Your task to perform on an android device: Open Google Chrome and open the bookmarks view Image 0: 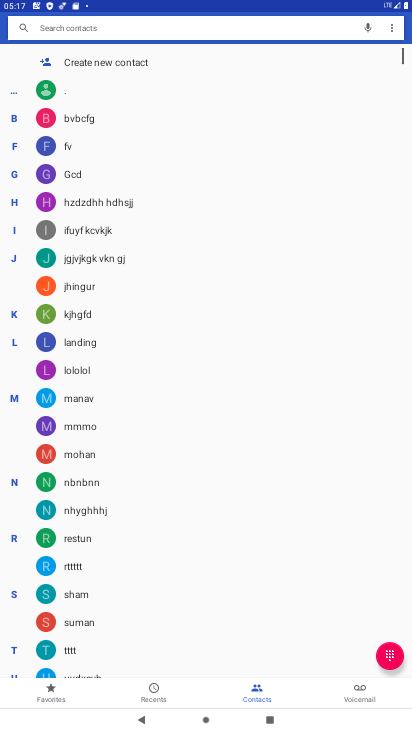
Step 0: press home button
Your task to perform on an android device: Open Google Chrome and open the bookmarks view Image 1: 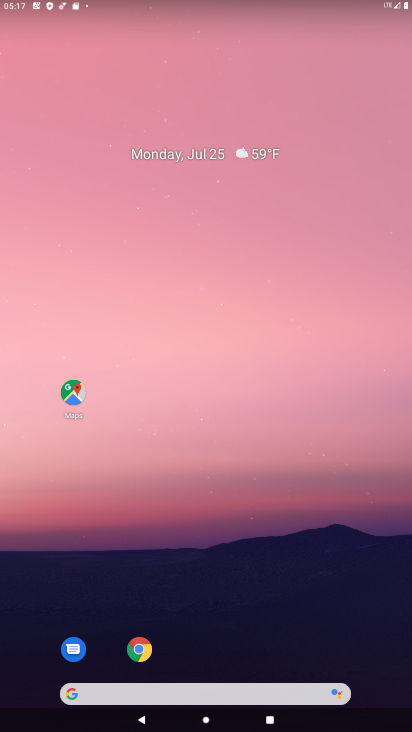
Step 1: drag from (212, 722) to (112, 5)
Your task to perform on an android device: Open Google Chrome and open the bookmarks view Image 2: 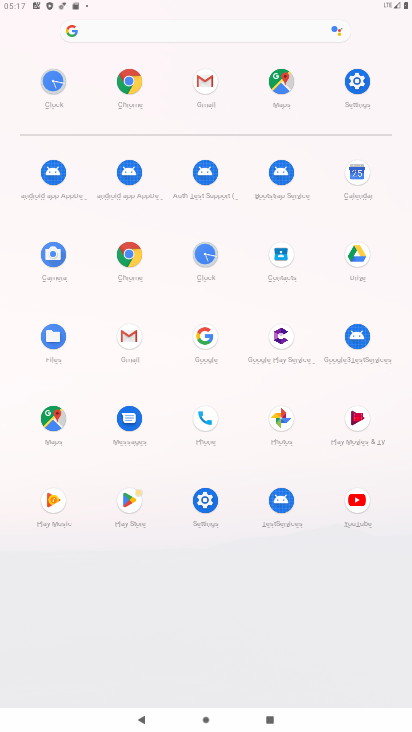
Step 2: click (107, 87)
Your task to perform on an android device: Open Google Chrome and open the bookmarks view Image 3: 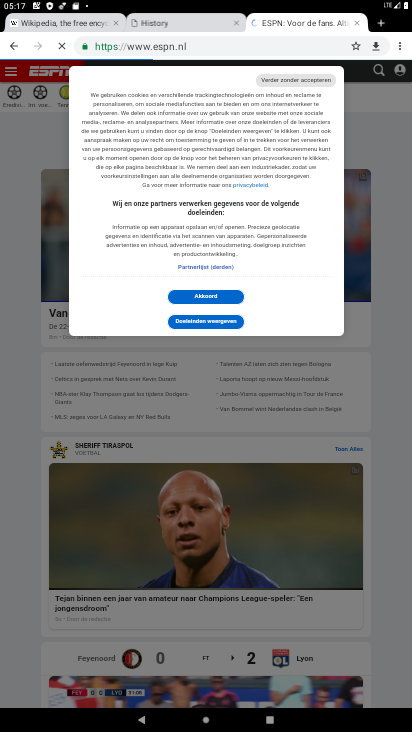
Step 3: drag from (391, 46) to (341, 105)
Your task to perform on an android device: Open Google Chrome and open the bookmarks view Image 4: 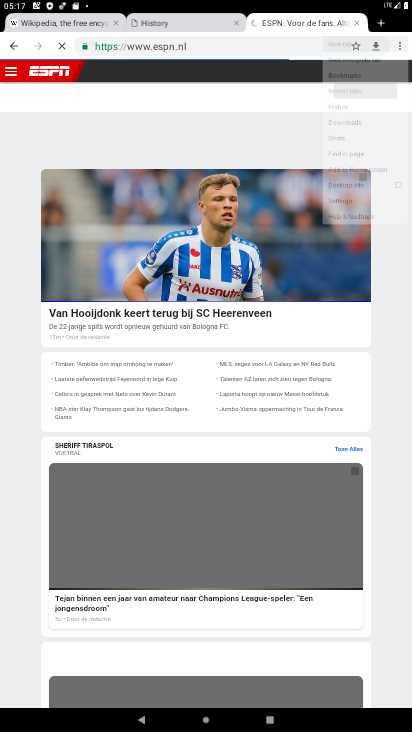
Step 4: click (326, 94)
Your task to perform on an android device: Open Google Chrome and open the bookmarks view Image 5: 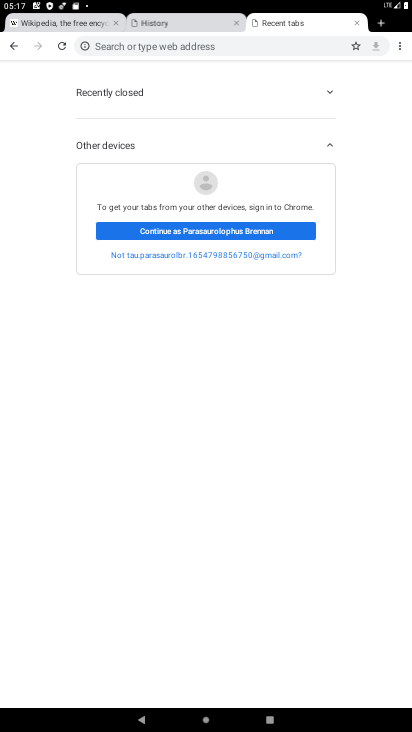
Step 5: click (224, 224)
Your task to perform on an android device: Open Google Chrome and open the bookmarks view Image 6: 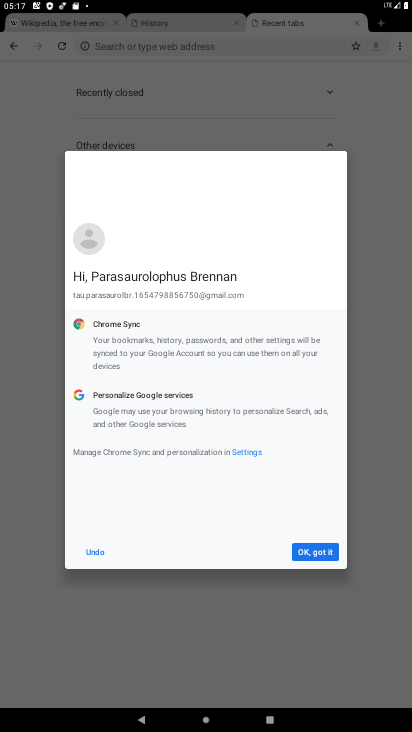
Step 6: click (324, 554)
Your task to perform on an android device: Open Google Chrome and open the bookmarks view Image 7: 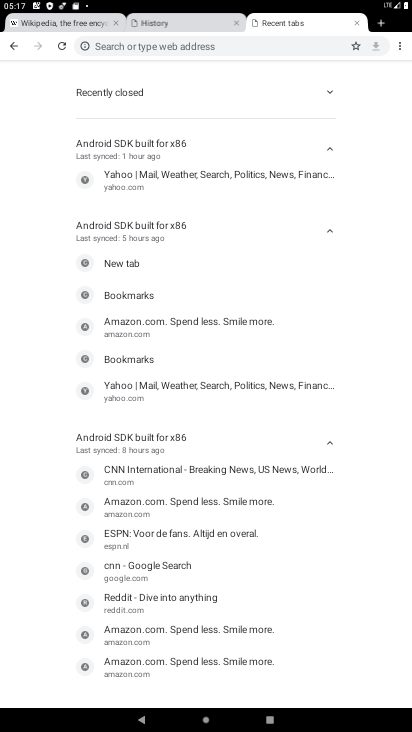
Step 7: task complete